Your task to perform on an android device: Open the calendar and show me this week's events Image 0: 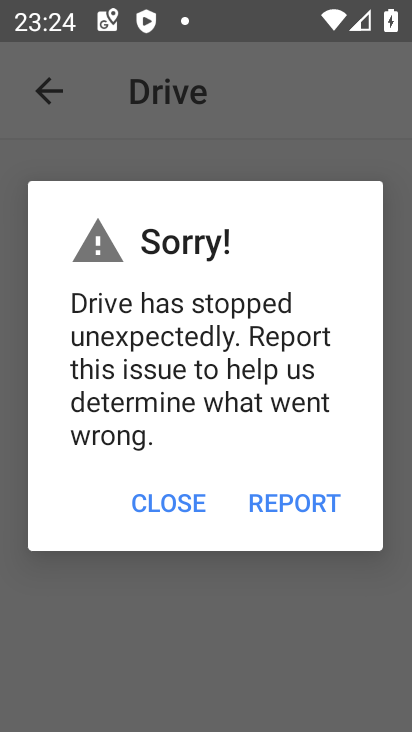
Step 0: press home button
Your task to perform on an android device: Open the calendar and show me this week's events Image 1: 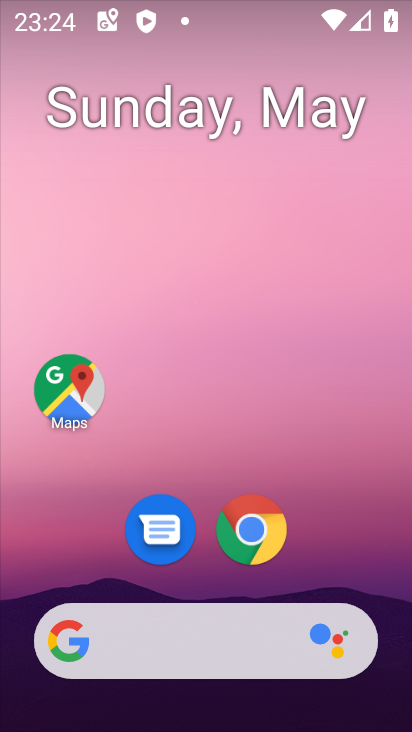
Step 1: drag from (344, 562) to (218, 134)
Your task to perform on an android device: Open the calendar and show me this week's events Image 2: 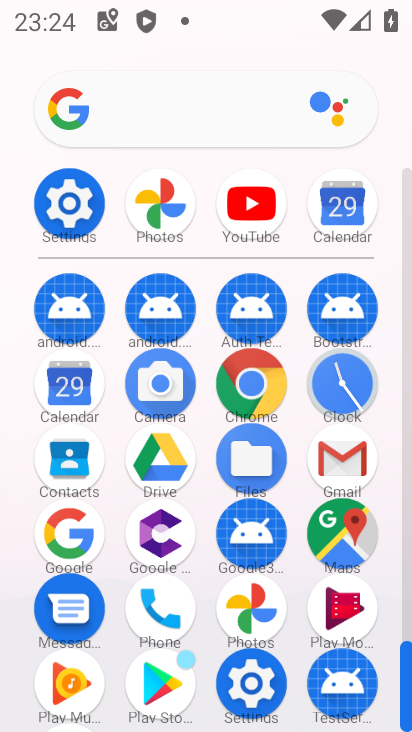
Step 2: click (65, 371)
Your task to perform on an android device: Open the calendar and show me this week's events Image 3: 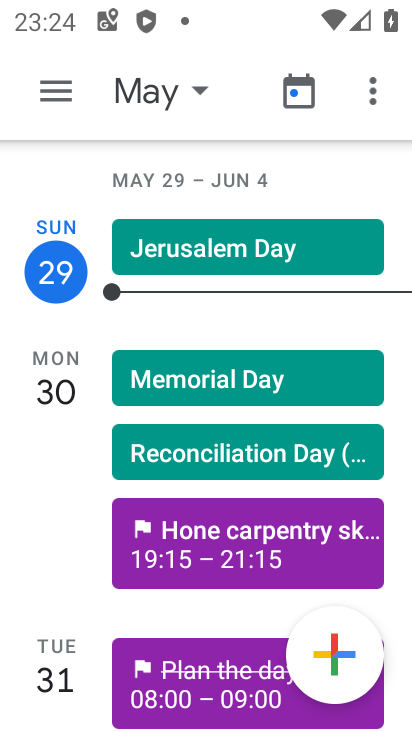
Step 3: task complete